Your task to perform on an android device: open app "McDonald's" (install if not already installed), go to login, and select forgot password Image 0: 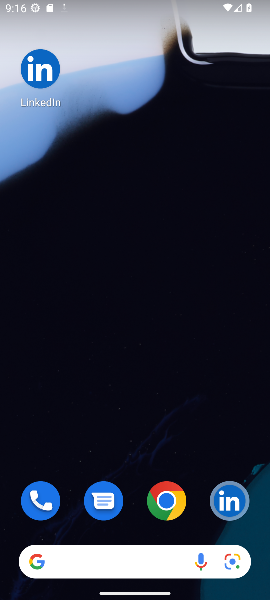
Step 0: drag from (193, 525) to (164, 135)
Your task to perform on an android device: open app "McDonald's" (install if not already installed), go to login, and select forgot password Image 1: 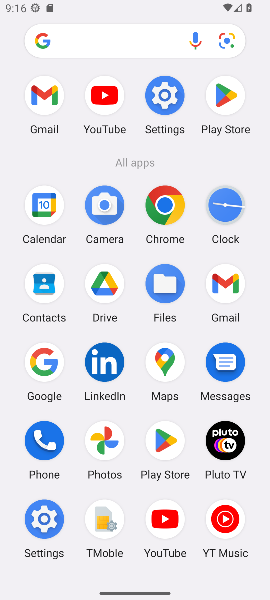
Step 1: click (212, 112)
Your task to perform on an android device: open app "McDonald's" (install if not already installed), go to login, and select forgot password Image 2: 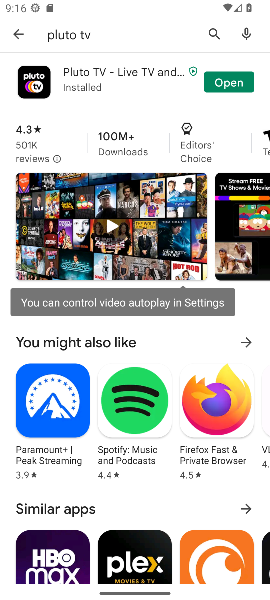
Step 2: click (207, 44)
Your task to perform on an android device: open app "McDonald's" (install if not already installed), go to login, and select forgot password Image 3: 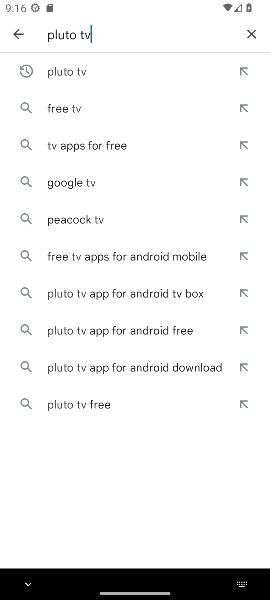
Step 3: click (241, 36)
Your task to perform on an android device: open app "McDonald's" (install if not already installed), go to login, and select forgot password Image 4: 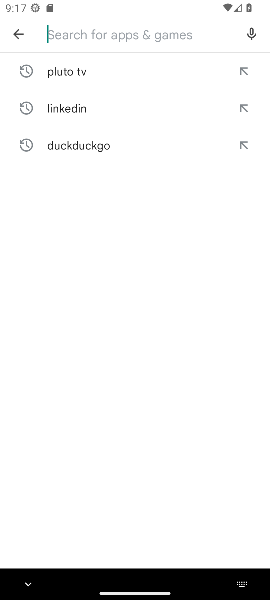
Step 4: type "mcdoland"
Your task to perform on an android device: open app "McDonald's" (install if not already installed), go to login, and select forgot password Image 5: 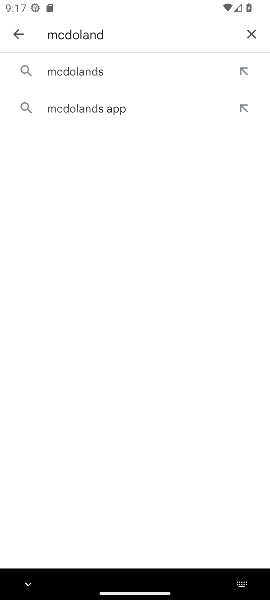
Step 5: click (141, 75)
Your task to perform on an android device: open app "McDonald's" (install if not already installed), go to login, and select forgot password Image 6: 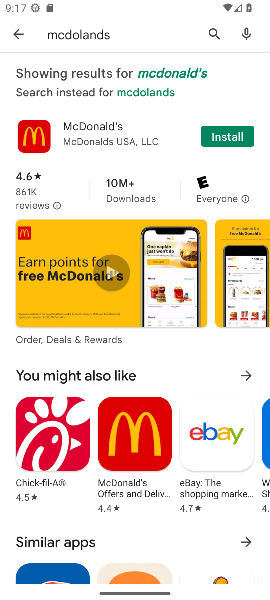
Step 6: click (219, 130)
Your task to perform on an android device: open app "McDonald's" (install if not already installed), go to login, and select forgot password Image 7: 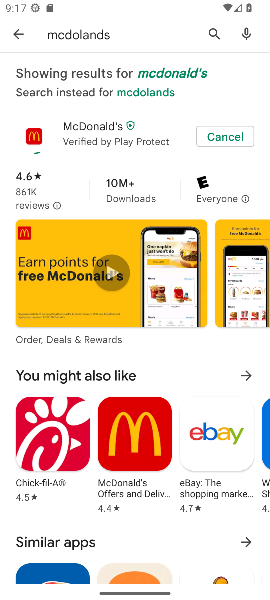
Step 7: task complete